Your task to perform on an android device: turn notification dots off Image 0: 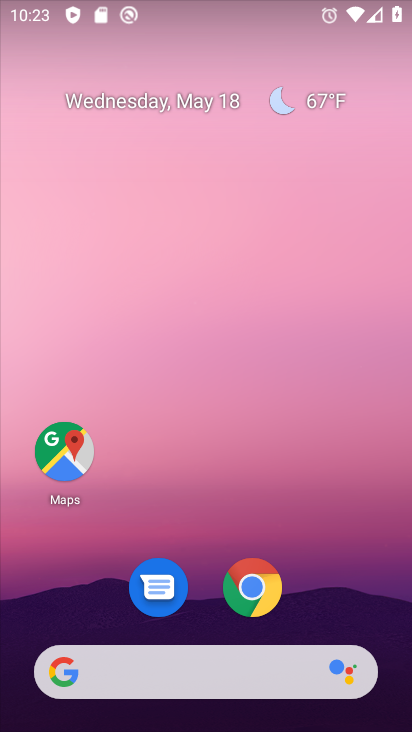
Step 0: drag from (327, 589) to (325, 332)
Your task to perform on an android device: turn notification dots off Image 1: 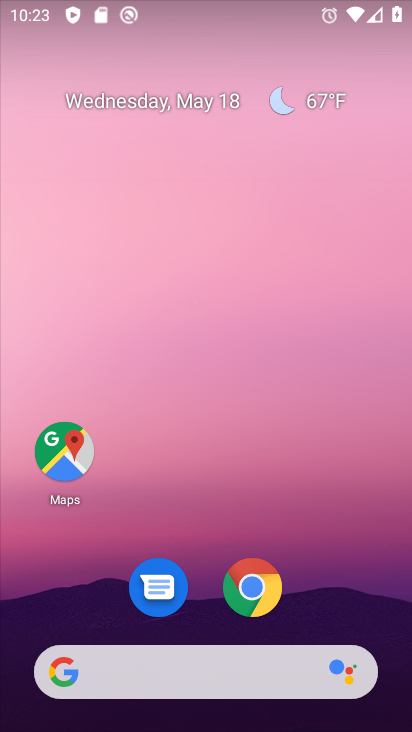
Step 1: drag from (369, 577) to (357, 275)
Your task to perform on an android device: turn notification dots off Image 2: 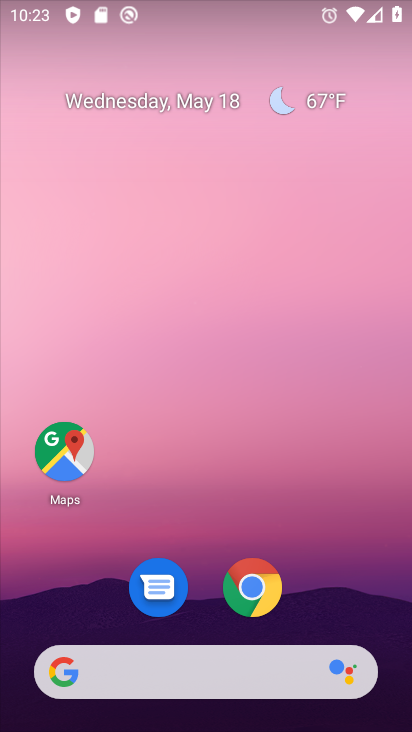
Step 2: drag from (311, 566) to (311, 48)
Your task to perform on an android device: turn notification dots off Image 3: 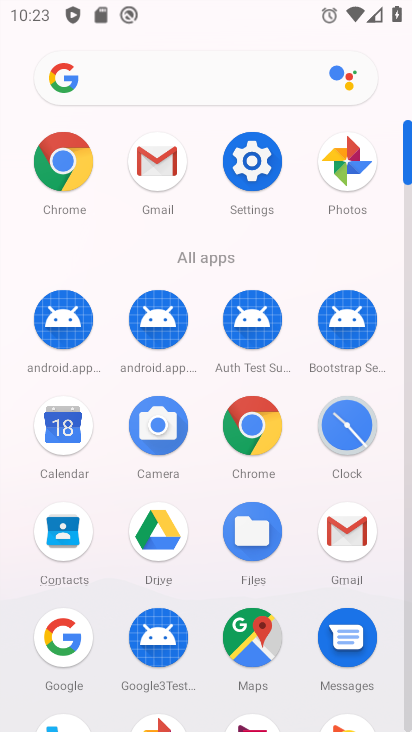
Step 3: click (245, 158)
Your task to perform on an android device: turn notification dots off Image 4: 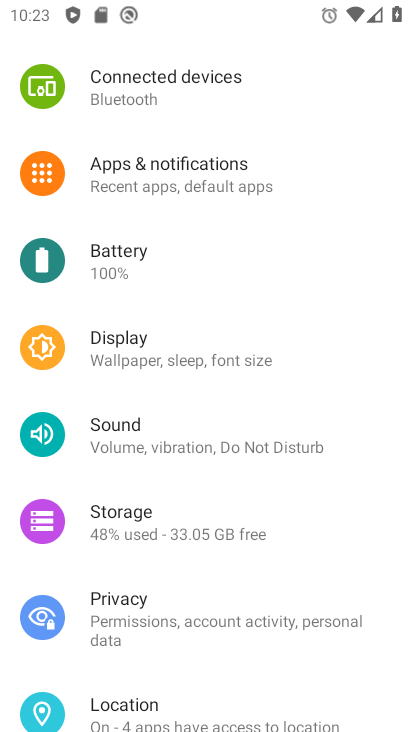
Step 4: drag from (224, 636) to (254, 175)
Your task to perform on an android device: turn notification dots off Image 5: 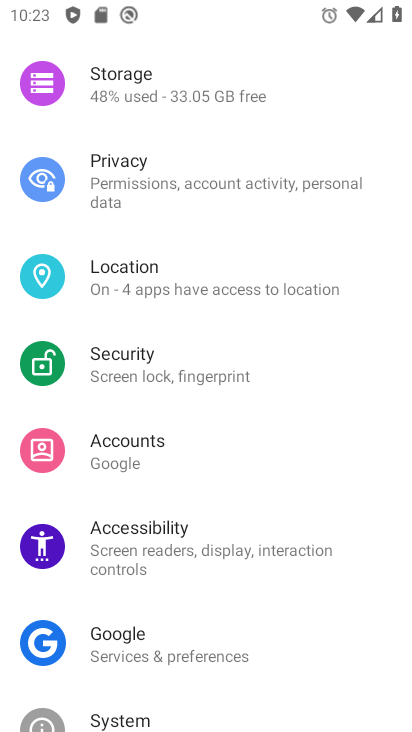
Step 5: drag from (282, 645) to (287, 155)
Your task to perform on an android device: turn notification dots off Image 6: 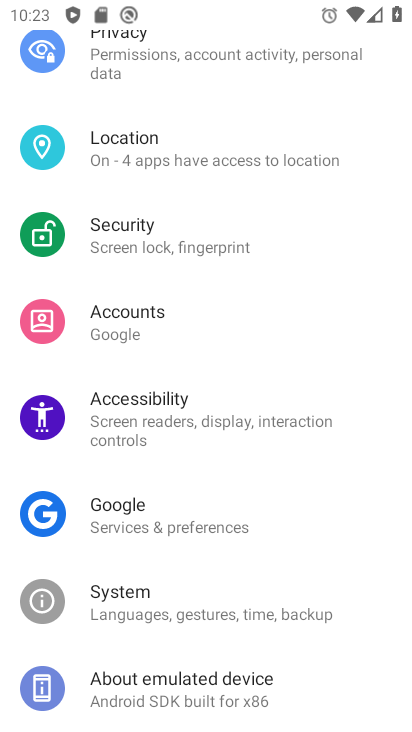
Step 6: drag from (261, 614) to (276, 352)
Your task to perform on an android device: turn notification dots off Image 7: 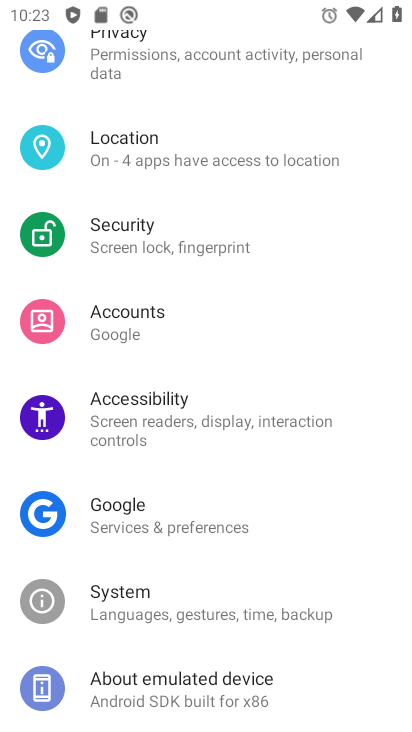
Step 7: click (243, 673)
Your task to perform on an android device: turn notification dots off Image 8: 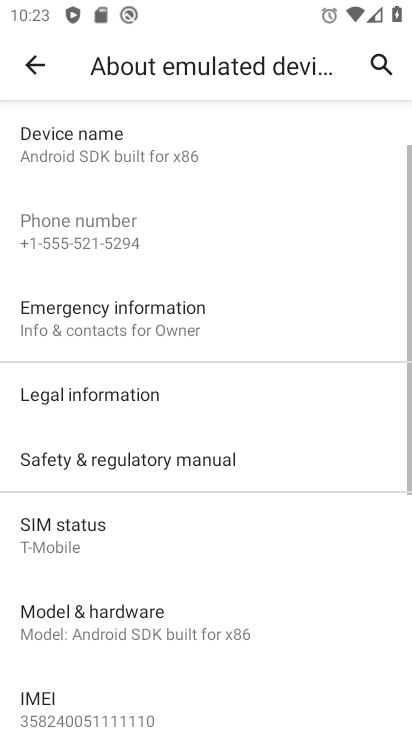
Step 8: drag from (244, 674) to (286, 411)
Your task to perform on an android device: turn notification dots off Image 9: 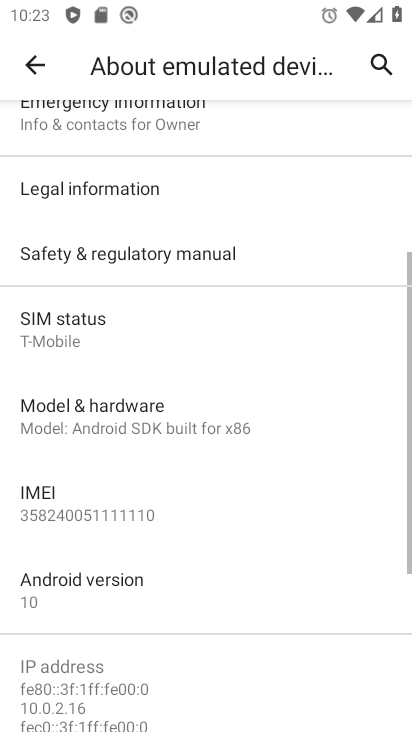
Step 9: drag from (238, 534) to (266, 236)
Your task to perform on an android device: turn notification dots off Image 10: 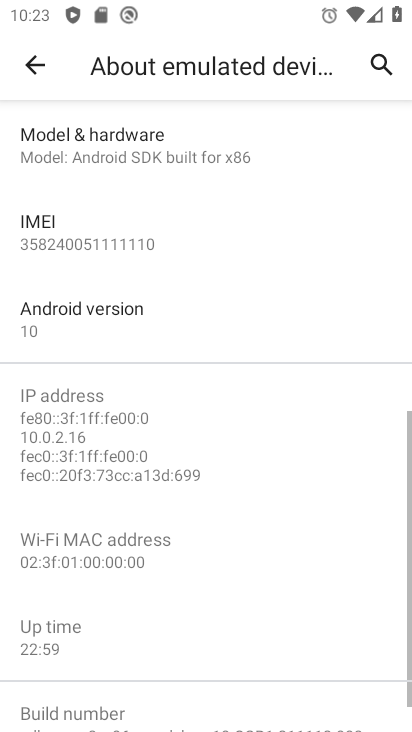
Step 10: drag from (244, 517) to (262, 311)
Your task to perform on an android device: turn notification dots off Image 11: 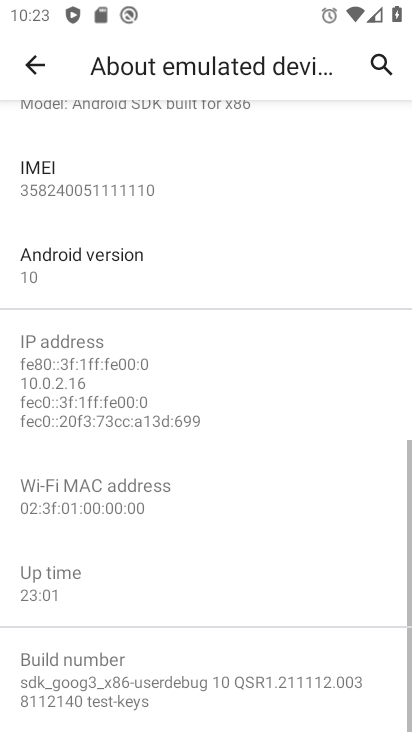
Step 11: drag from (299, 201) to (277, 582)
Your task to perform on an android device: turn notification dots off Image 12: 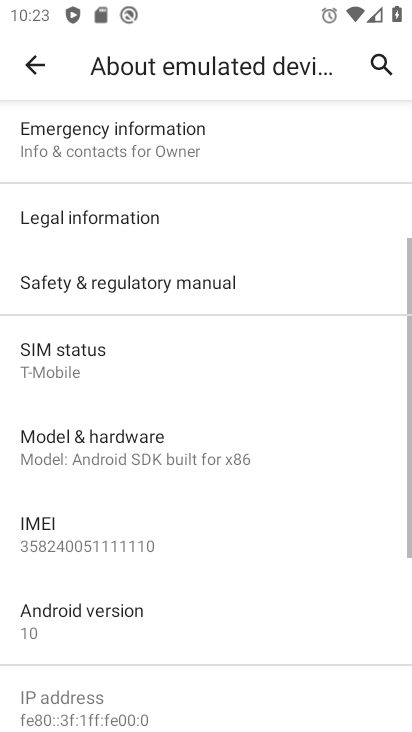
Step 12: drag from (327, 230) to (255, 648)
Your task to perform on an android device: turn notification dots off Image 13: 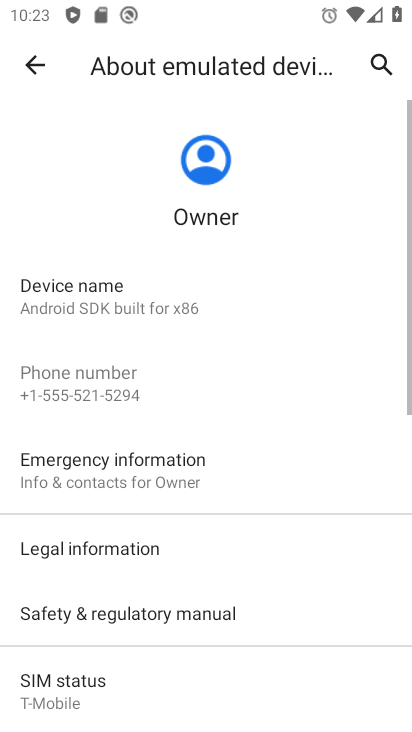
Step 13: press back button
Your task to perform on an android device: turn notification dots off Image 14: 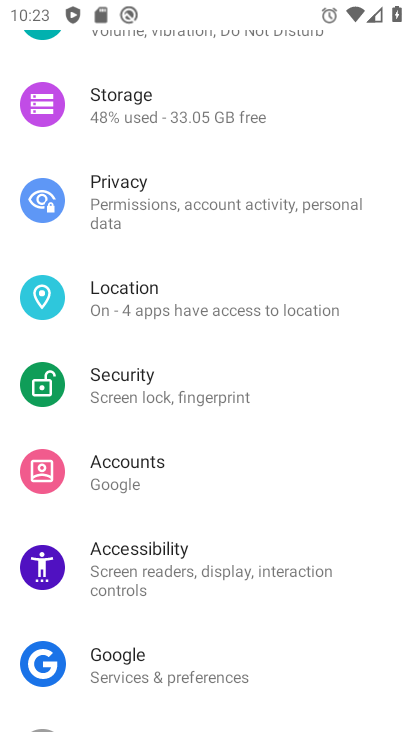
Step 14: drag from (227, 180) to (112, 547)
Your task to perform on an android device: turn notification dots off Image 15: 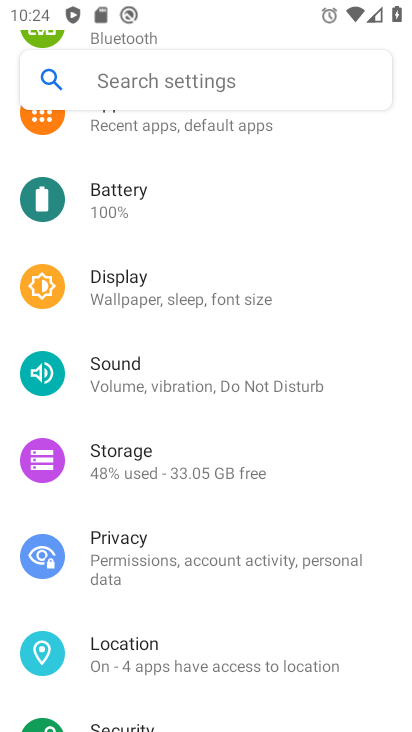
Step 15: drag from (191, 283) to (151, 546)
Your task to perform on an android device: turn notification dots off Image 16: 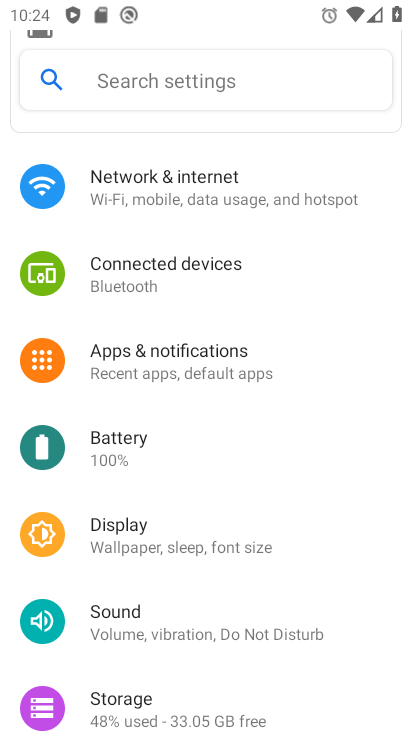
Step 16: click (204, 360)
Your task to perform on an android device: turn notification dots off Image 17: 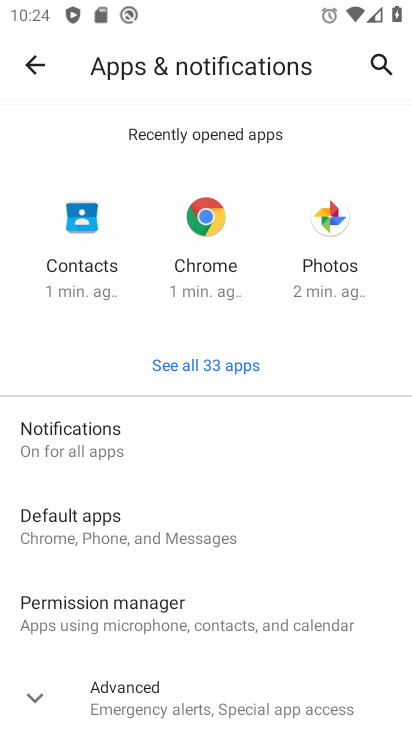
Step 17: click (217, 442)
Your task to perform on an android device: turn notification dots off Image 18: 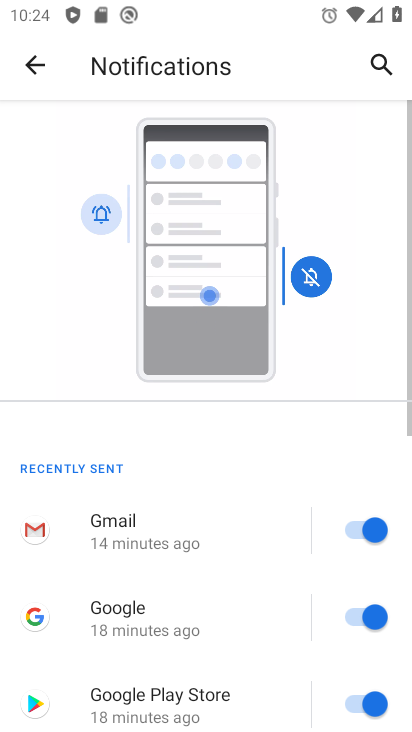
Step 18: drag from (247, 641) to (253, 223)
Your task to perform on an android device: turn notification dots off Image 19: 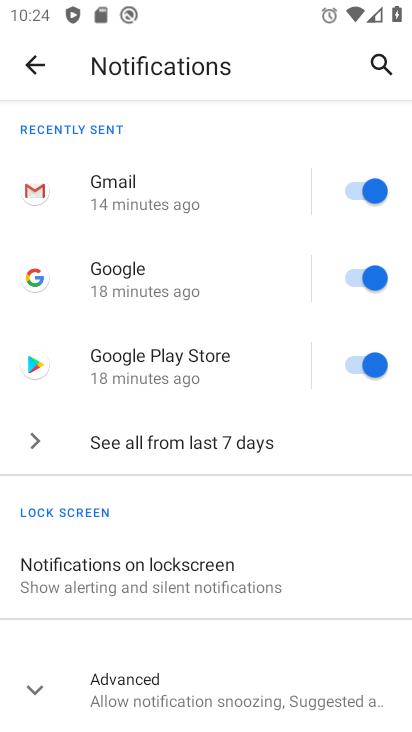
Step 19: click (189, 677)
Your task to perform on an android device: turn notification dots off Image 20: 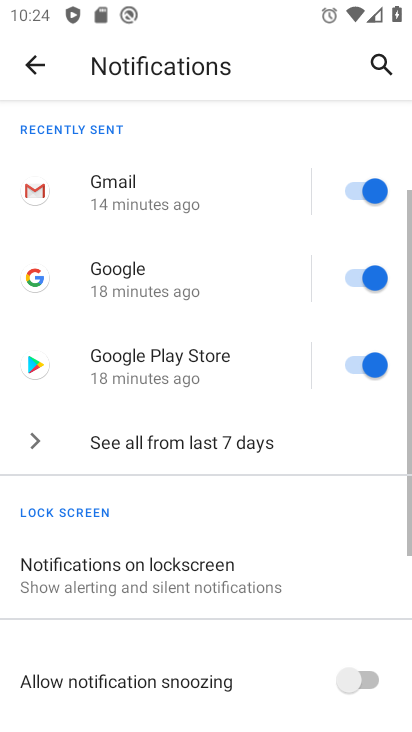
Step 20: drag from (205, 680) to (201, 346)
Your task to perform on an android device: turn notification dots off Image 21: 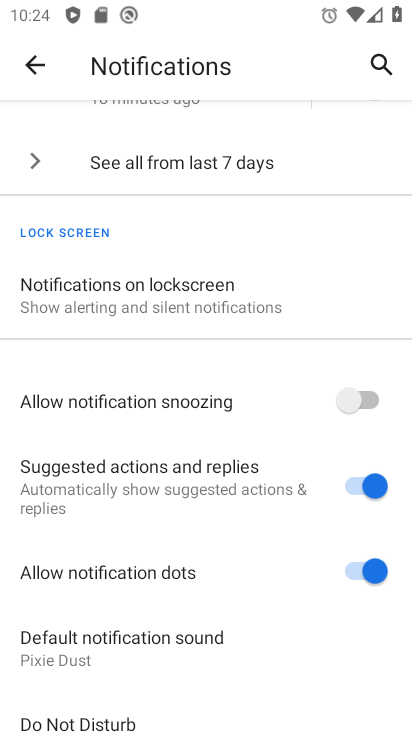
Step 21: click (374, 566)
Your task to perform on an android device: turn notification dots off Image 22: 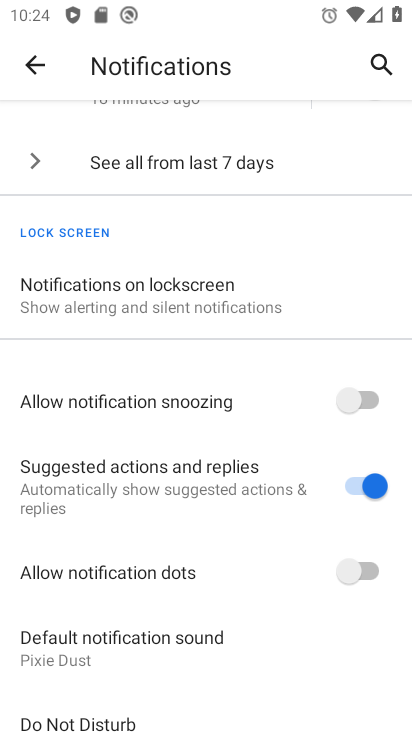
Step 22: task complete